Your task to perform on an android device: Find coffee shops on Maps Image 0: 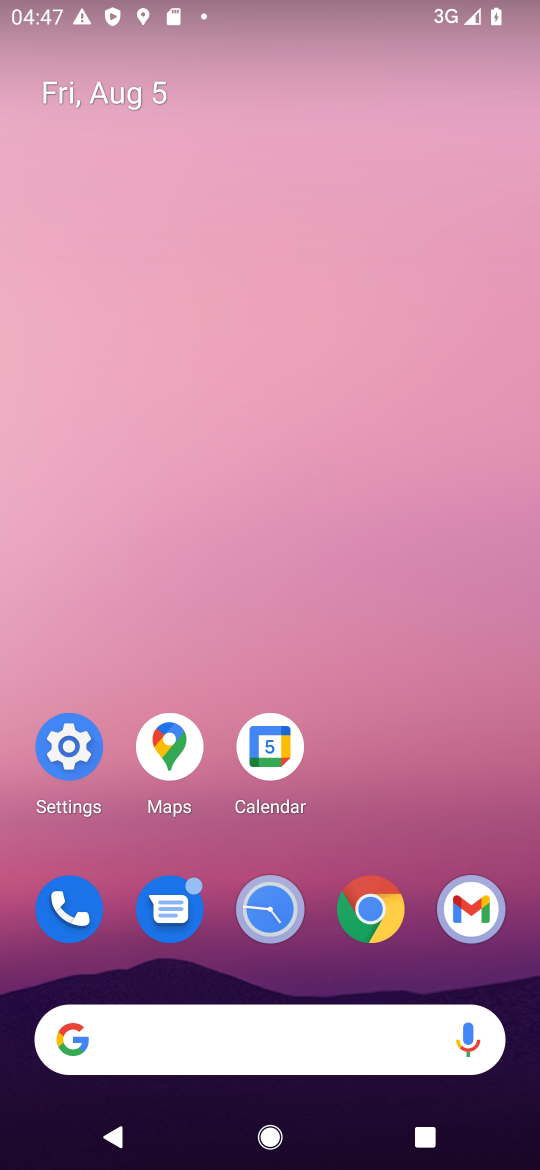
Step 0: press home button
Your task to perform on an android device: Find coffee shops on Maps Image 1: 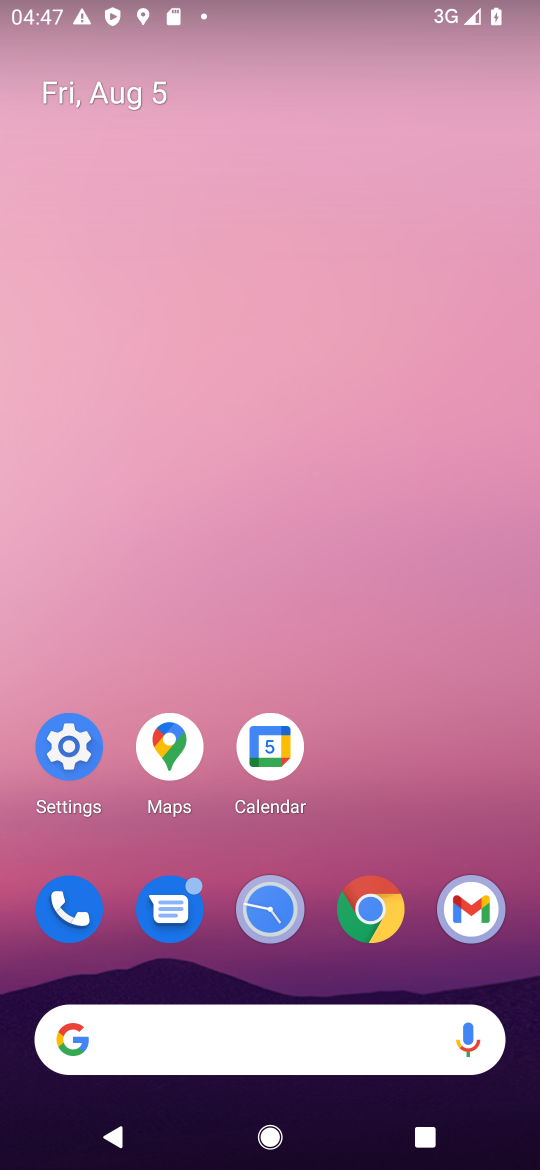
Step 1: click (171, 742)
Your task to perform on an android device: Find coffee shops on Maps Image 2: 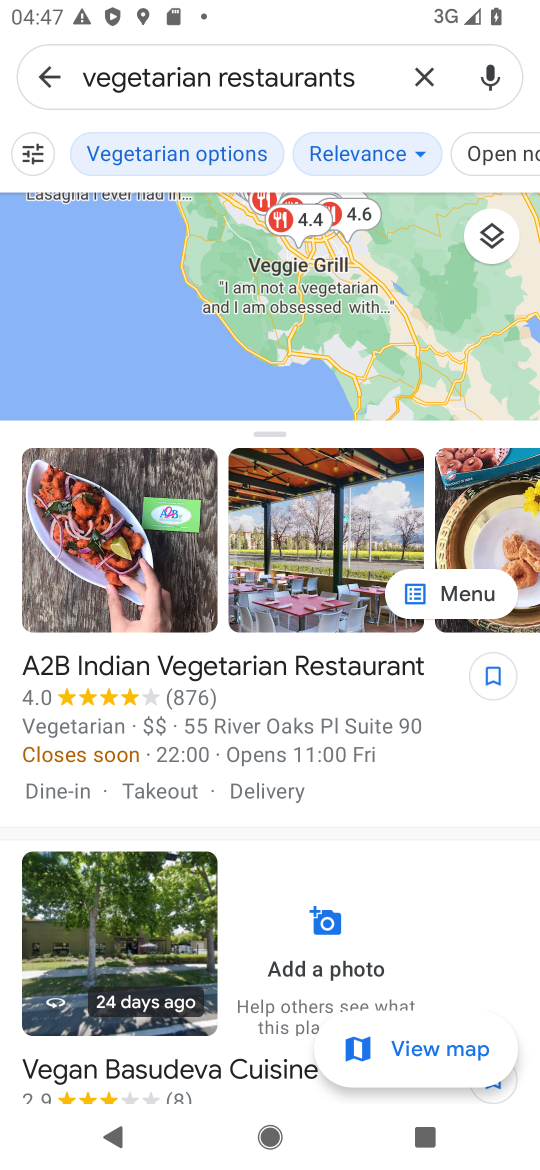
Step 2: click (425, 70)
Your task to perform on an android device: Find coffee shops on Maps Image 3: 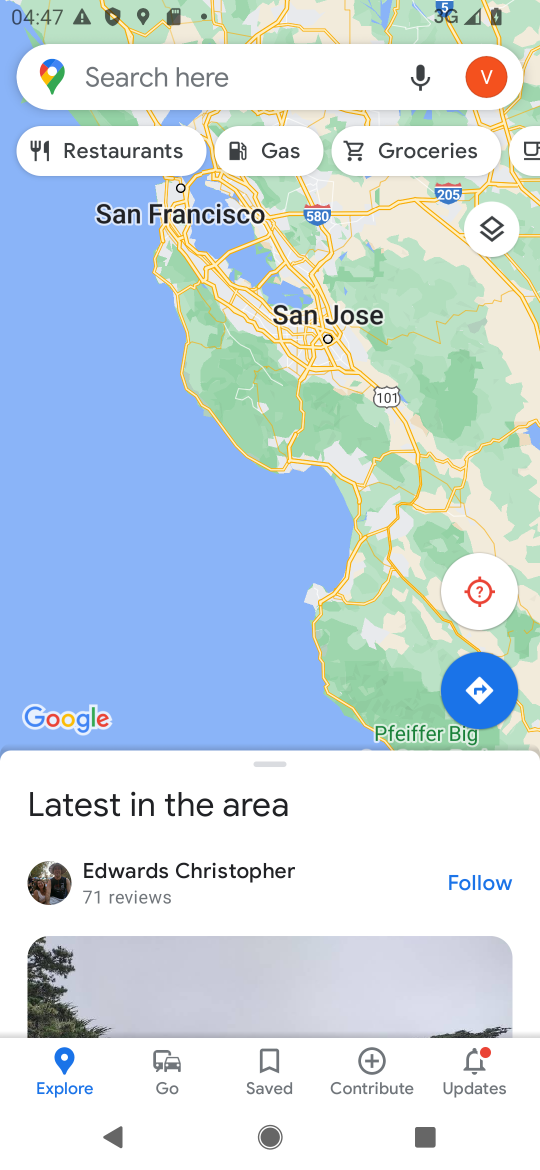
Step 3: click (228, 79)
Your task to perform on an android device: Find coffee shops on Maps Image 4: 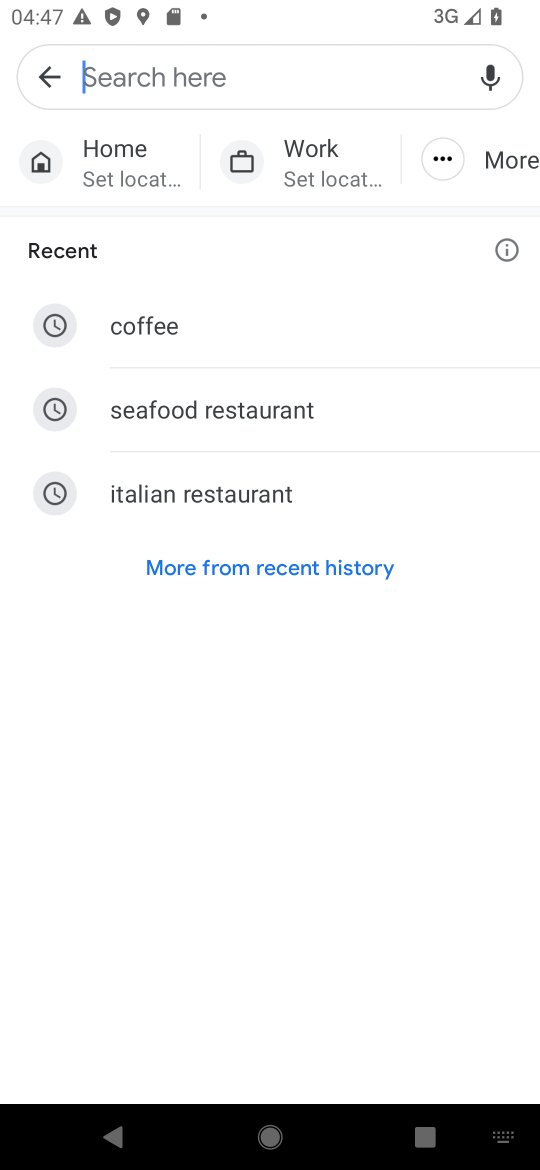
Step 4: click (145, 315)
Your task to perform on an android device: Find coffee shops on Maps Image 5: 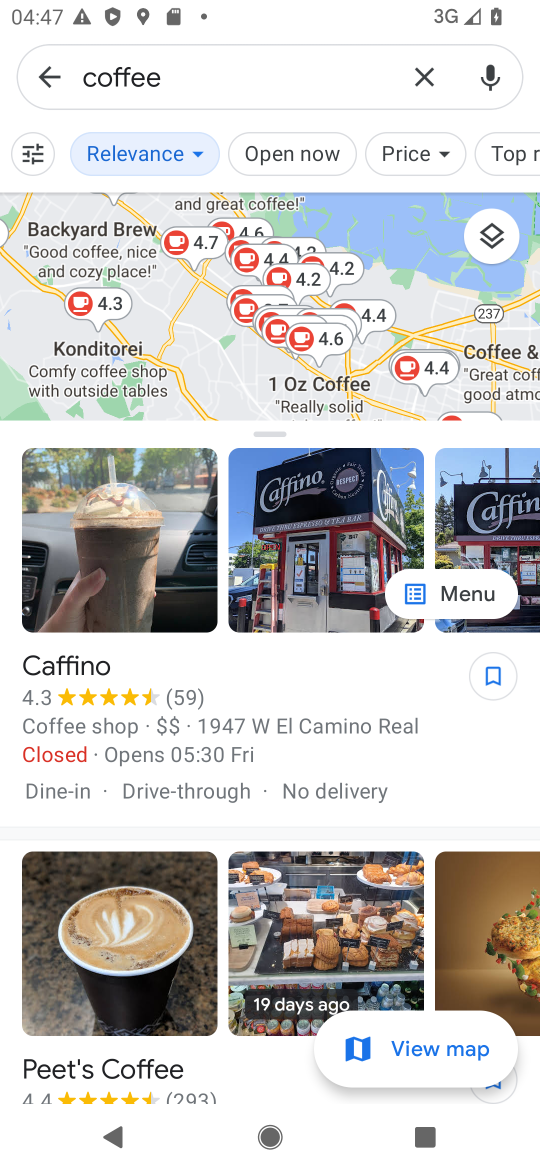
Step 5: task complete